Your task to perform on an android device: turn off translation in the chrome app Image 0: 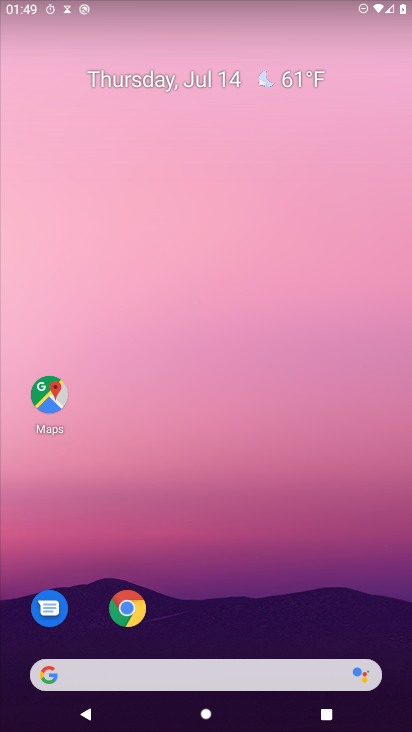
Step 0: press home button
Your task to perform on an android device: turn off translation in the chrome app Image 1: 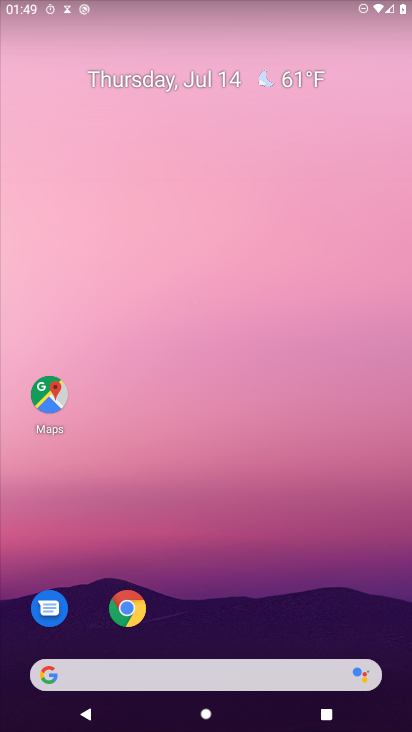
Step 1: click (129, 608)
Your task to perform on an android device: turn off translation in the chrome app Image 2: 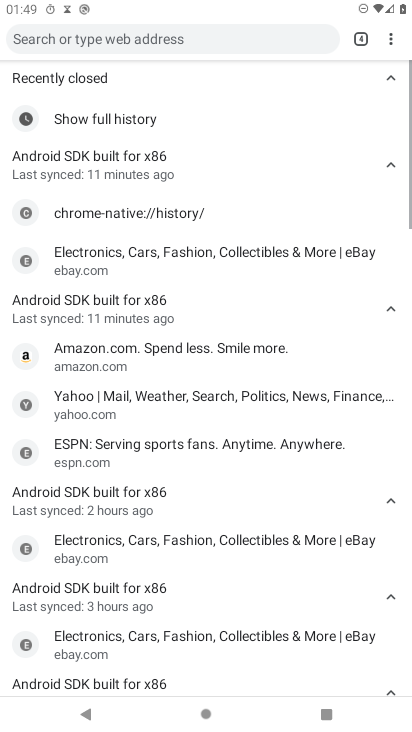
Step 2: drag from (394, 37) to (236, 330)
Your task to perform on an android device: turn off translation in the chrome app Image 3: 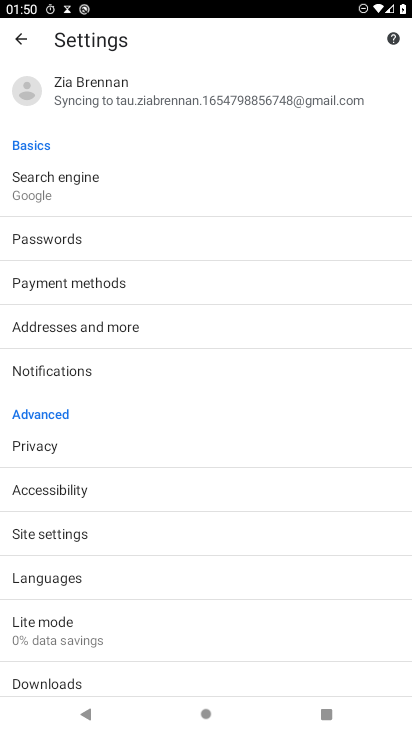
Step 3: click (66, 569)
Your task to perform on an android device: turn off translation in the chrome app Image 4: 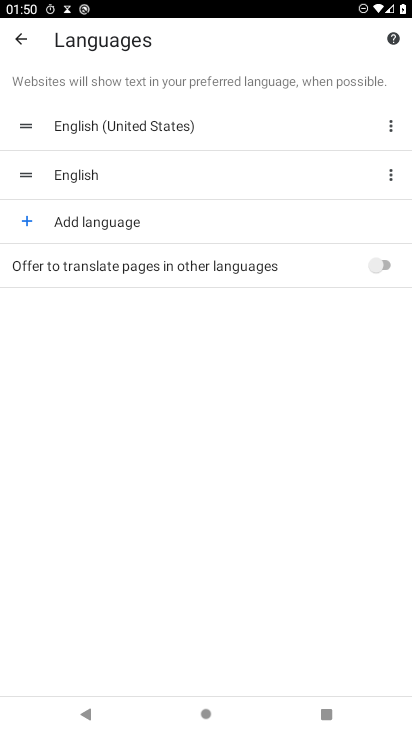
Step 4: task complete